Your task to perform on an android device: toggle wifi Image 0: 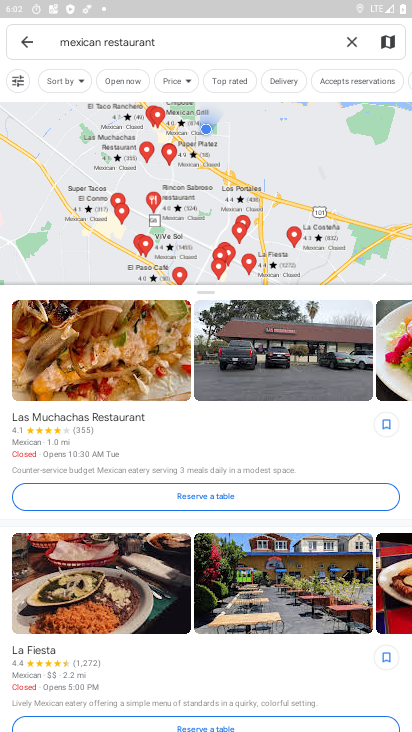
Step 0: press home button
Your task to perform on an android device: toggle wifi Image 1: 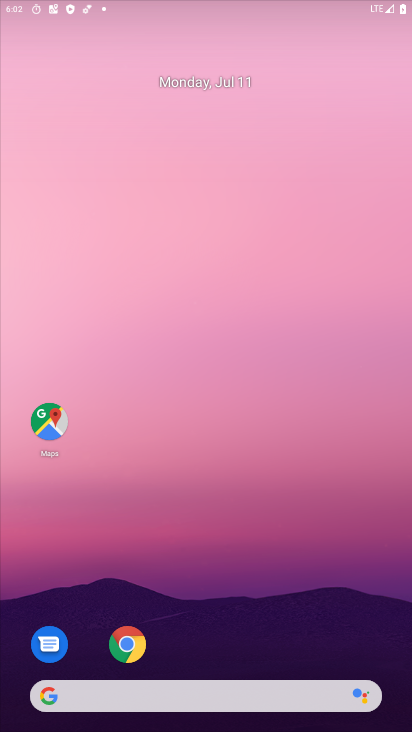
Step 1: drag from (257, 690) to (282, 44)
Your task to perform on an android device: toggle wifi Image 2: 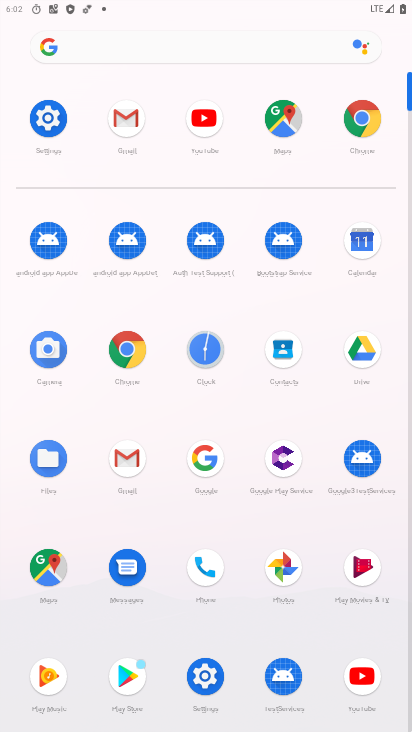
Step 2: click (56, 121)
Your task to perform on an android device: toggle wifi Image 3: 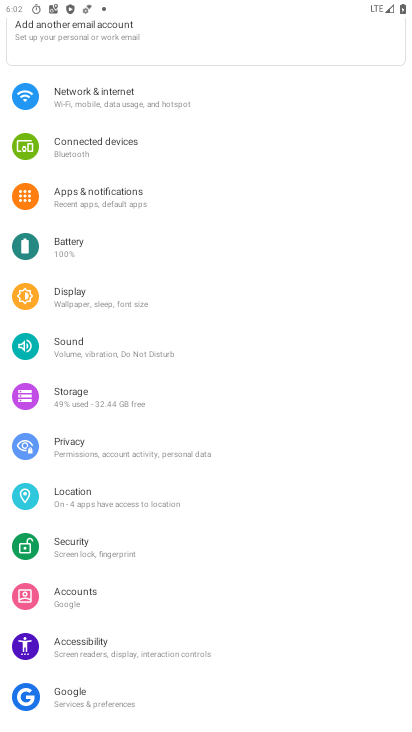
Step 3: click (124, 106)
Your task to perform on an android device: toggle wifi Image 4: 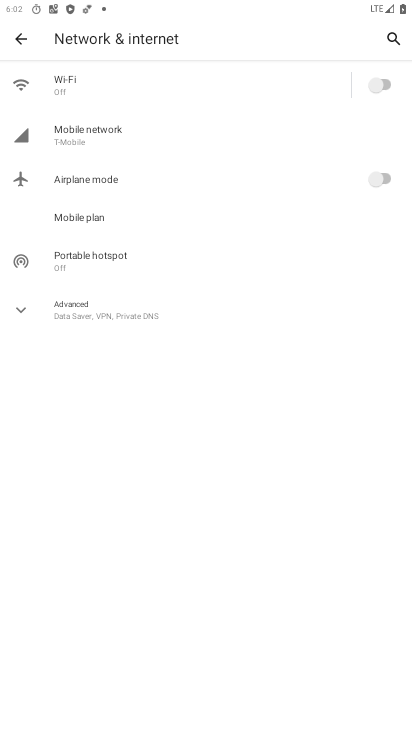
Step 4: click (116, 95)
Your task to perform on an android device: toggle wifi Image 5: 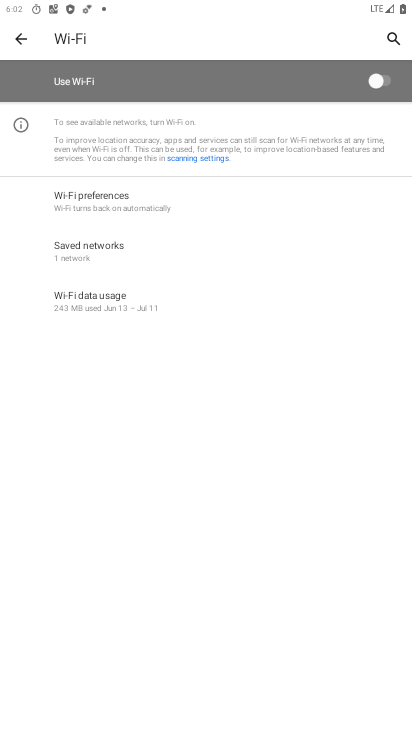
Step 5: click (382, 75)
Your task to perform on an android device: toggle wifi Image 6: 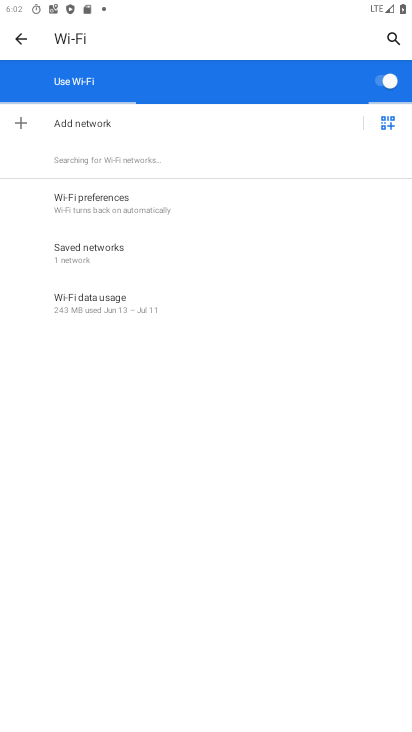
Step 6: task complete